Your task to perform on an android device: Open eBay Image 0: 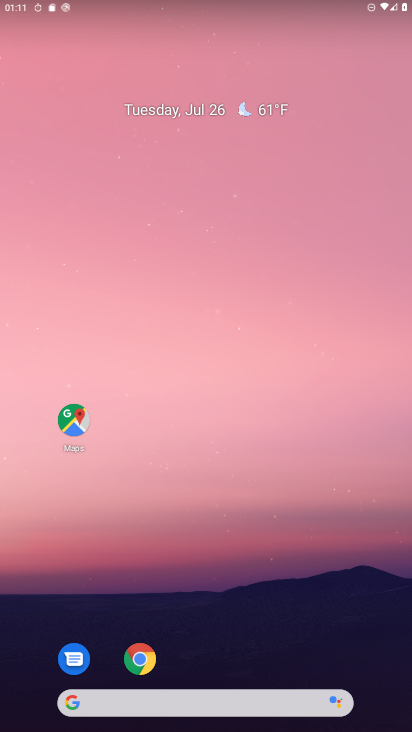
Step 0: click (93, 704)
Your task to perform on an android device: Open eBay Image 1: 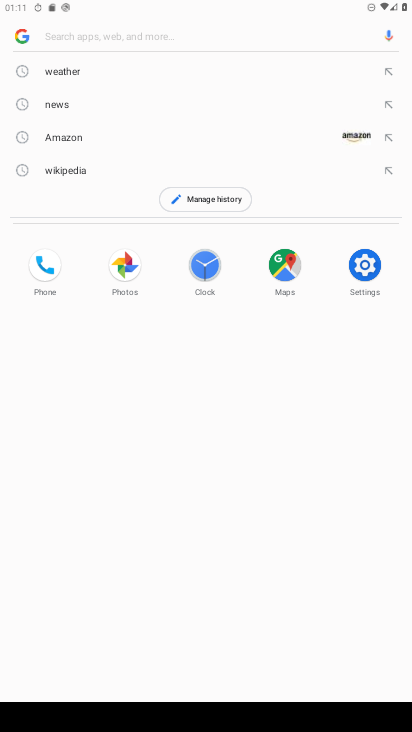
Step 1: type "eBay"
Your task to perform on an android device: Open eBay Image 2: 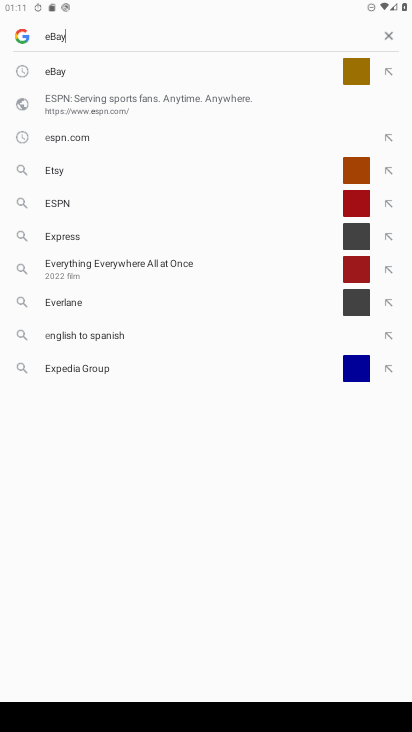
Step 2: type ""
Your task to perform on an android device: Open eBay Image 3: 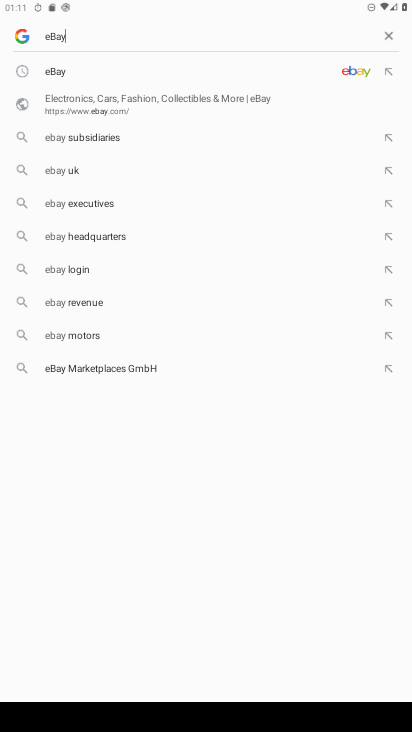
Step 3: click (48, 75)
Your task to perform on an android device: Open eBay Image 4: 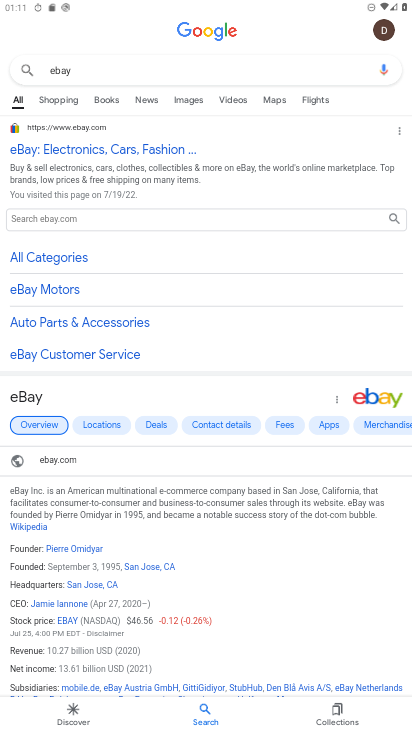
Step 4: task complete